Your task to perform on an android device: uninstall "ColorNote Notepad Notes" Image 0: 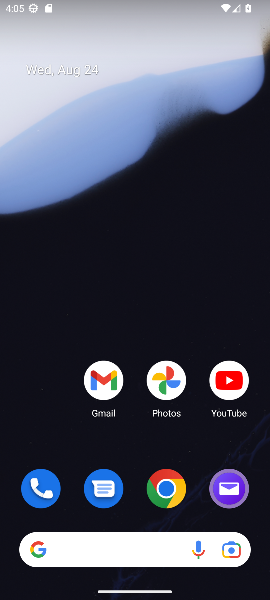
Step 0: drag from (135, 516) to (117, 117)
Your task to perform on an android device: uninstall "ColorNote Notepad Notes" Image 1: 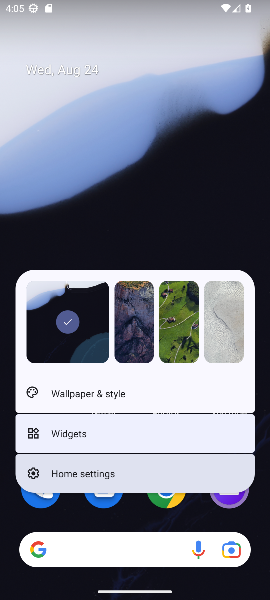
Step 1: click (124, 127)
Your task to perform on an android device: uninstall "ColorNote Notepad Notes" Image 2: 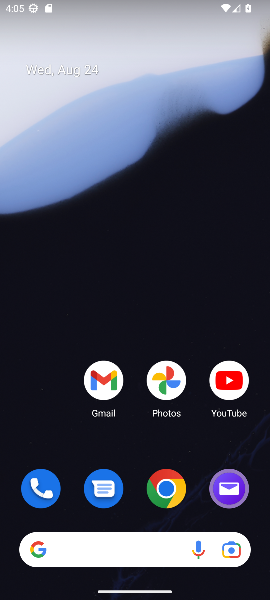
Step 2: drag from (131, 524) to (141, 79)
Your task to perform on an android device: uninstall "ColorNote Notepad Notes" Image 3: 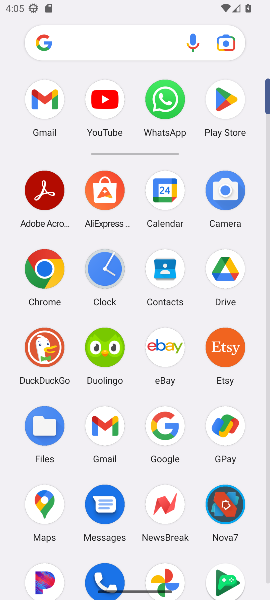
Step 3: click (218, 99)
Your task to perform on an android device: uninstall "ColorNote Notepad Notes" Image 4: 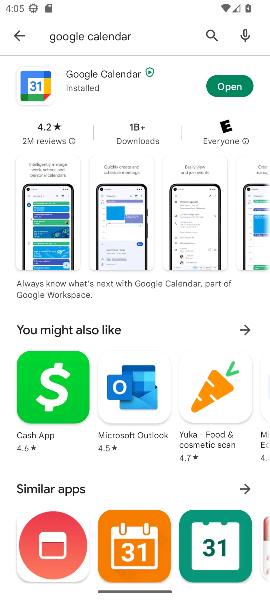
Step 4: click (213, 46)
Your task to perform on an android device: uninstall "ColorNote Notepad Notes" Image 5: 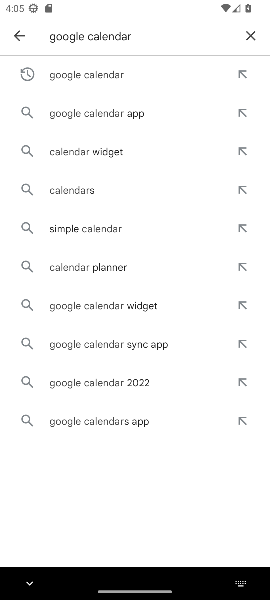
Step 5: click (255, 44)
Your task to perform on an android device: uninstall "ColorNote Notepad Notes" Image 6: 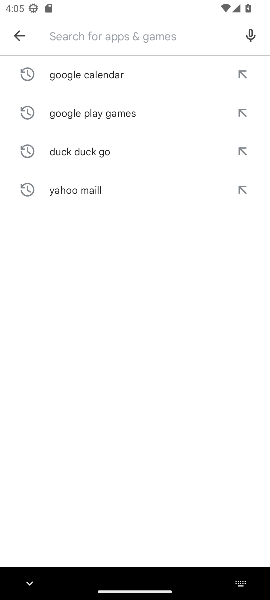
Step 6: type "colornote pad"
Your task to perform on an android device: uninstall "ColorNote Notepad Notes" Image 7: 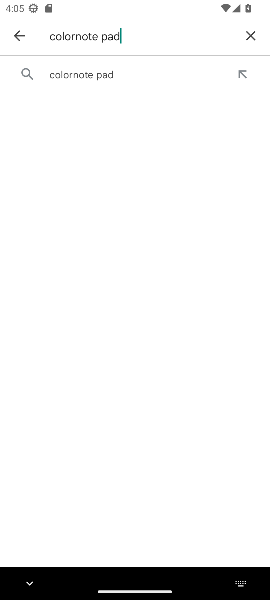
Step 7: click (107, 88)
Your task to perform on an android device: uninstall "ColorNote Notepad Notes" Image 8: 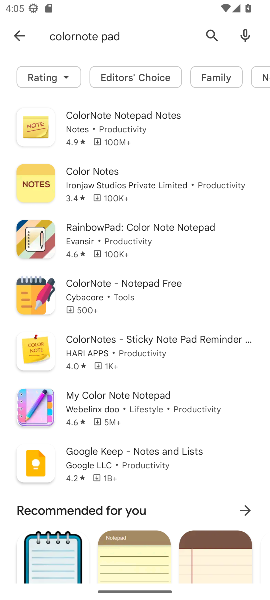
Step 8: click (109, 148)
Your task to perform on an android device: uninstall "ColorNote Notepad Notes" Image 9: 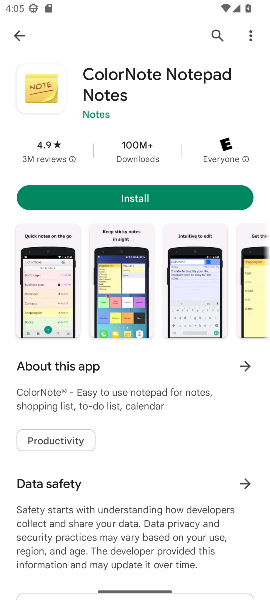
Step 9: click (143, 199)
Your task to perform on an android device: uninstall "ColorNote Notepad Notes" Image 10: 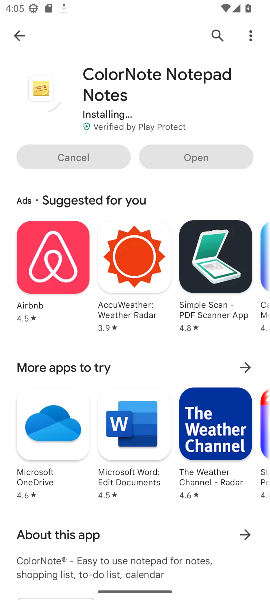
Step 10: task complete